Your task to perform on an android device: set an alarm Image 0: 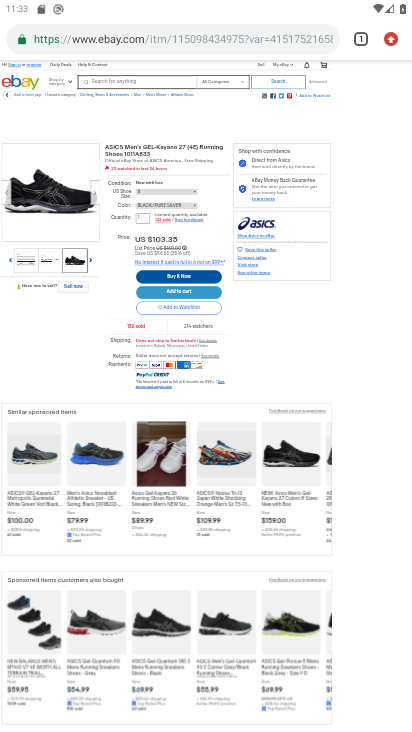
Step 0: press home button
Your task to perform on an android device: set an alarm Image 1: 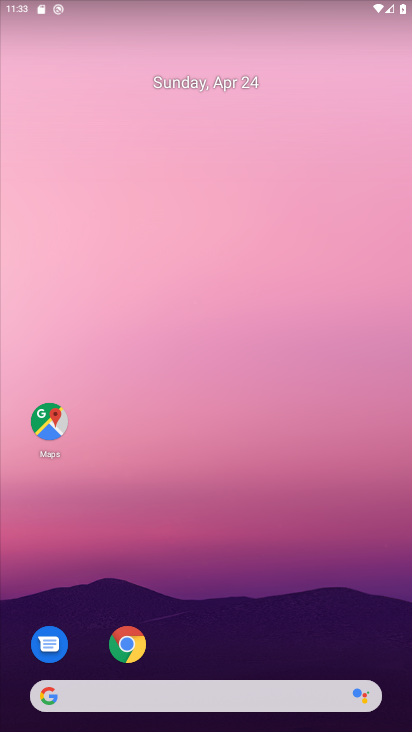
Step 1: drag from (194, 511) to (365, 11)
Your task to perform on an android device: set an alarm Image 2: 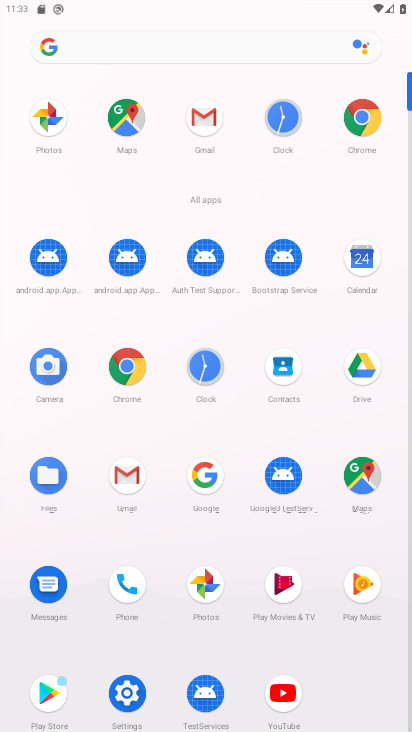
Step 2: click (205, 365)
Your task to perform on an android device: set an alarm Image 3: 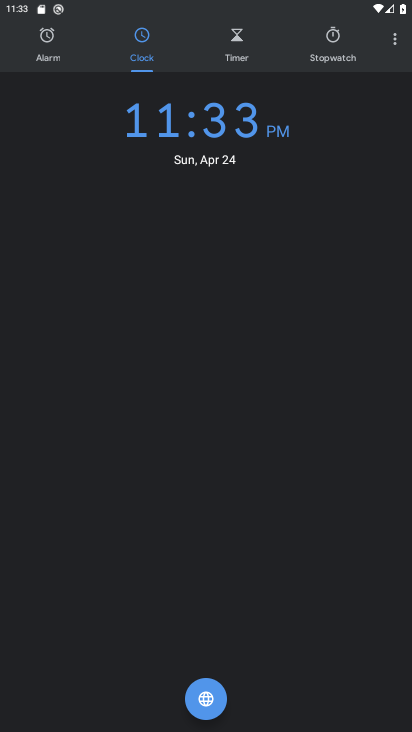
Step 3: click (42, 50)
Your task to perform on an android device: set an alarm Image 4: 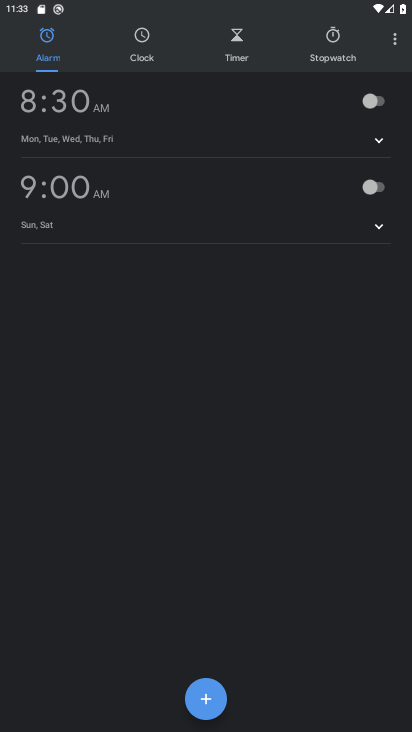
Step 4: click (382, 102)
Your task to perform on an android device: set an alarm Image 5: 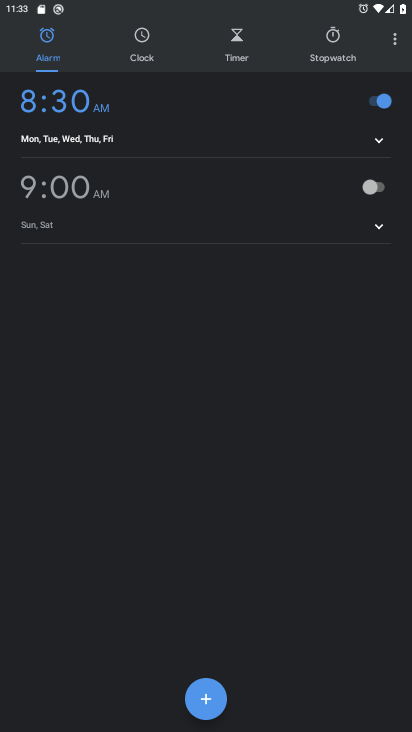
Step 5: task complete